Your task to perform on an android device: Open battery settings Image 0: 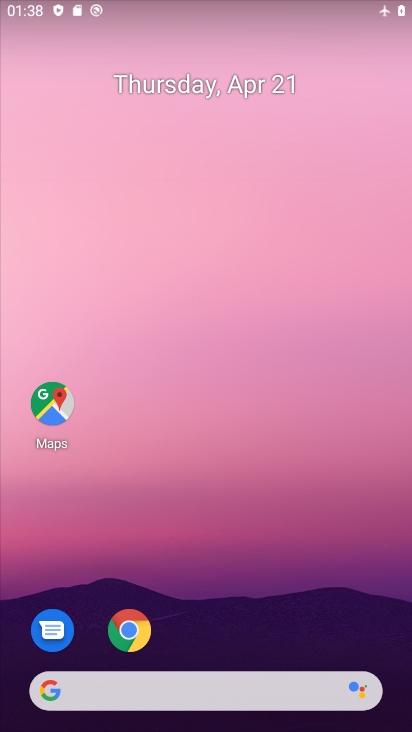
Step 0: drag from (201, 636) to (253, 230)
Your task to perform on an android device: Open battery settings Image 1: 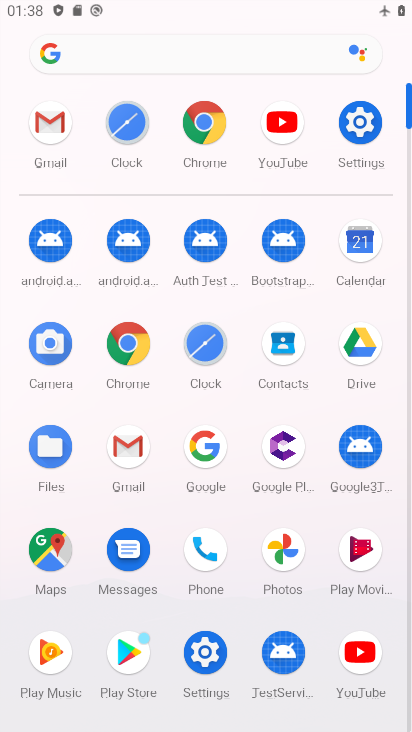
Step 1: click (352, 155)
Your task to perform on an android device: Open battery settings Image 2: 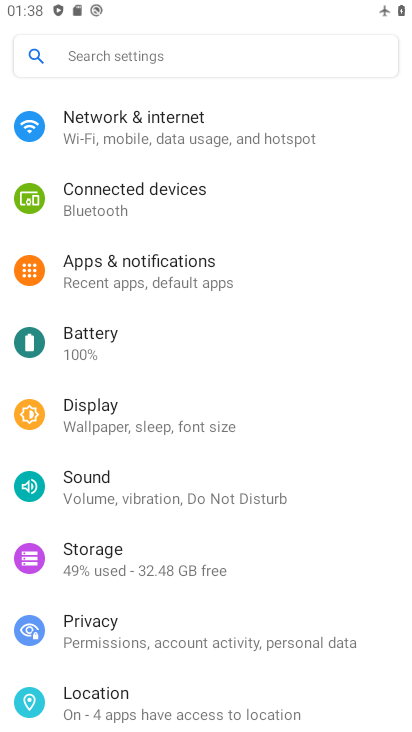
Step 2: click (192, 341)
Your task to perform on an android device: Open battery settings Image 3: 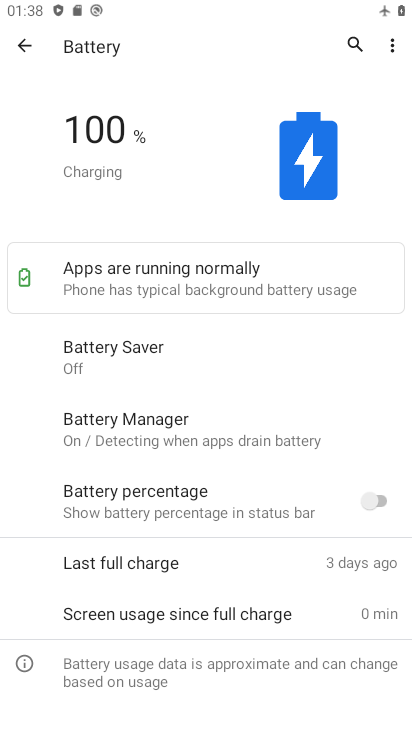
Step 3: task complete